Your task to perform on an android device: snooze an email in the gmail app Image 0: 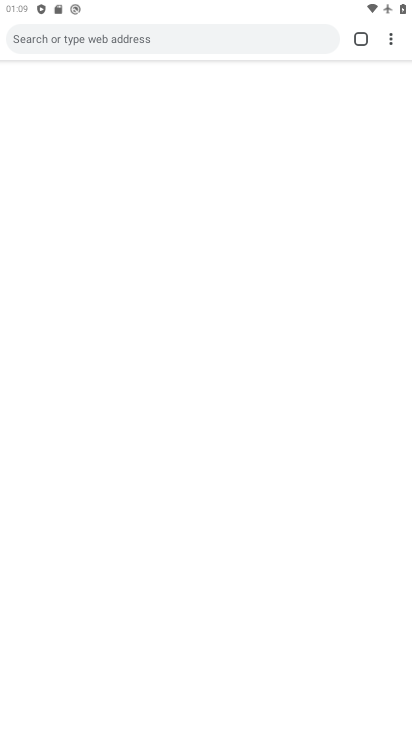
Step 0: drag from (194, 625) to (223, 103)
Your task to perform on an android device: snooze an email in the gmail app Image 1: 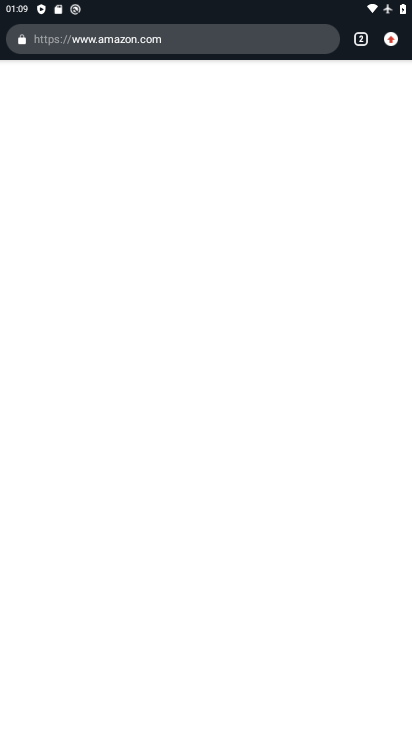
Step 1: press home button
Your task to perform on an android device: snooze an email in the gmail app Image 2: 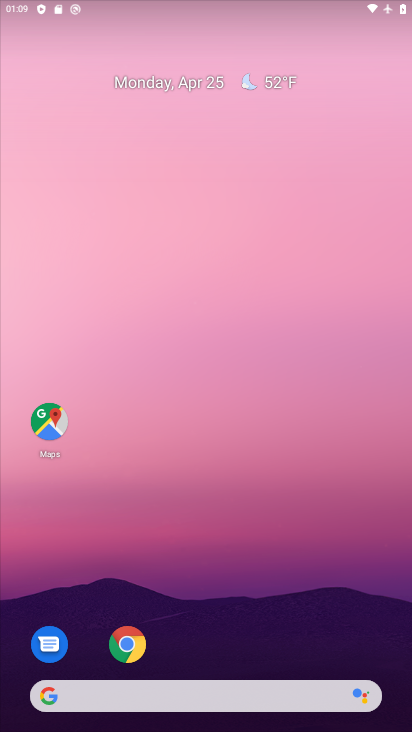
Step 2: drag from (230, 597) to (258, 58)
Your task to perform on an android device: snooze an email in the gmail app Image 3: 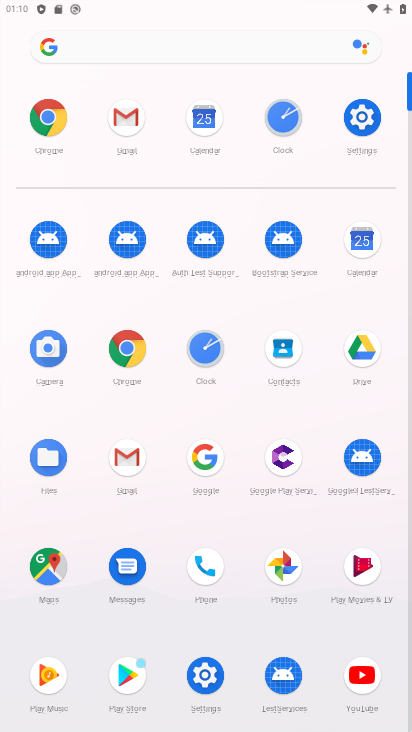
Step 3: click (127, 117)
Your task to perform on an android device: snooze an email in the gmail app Image 4: 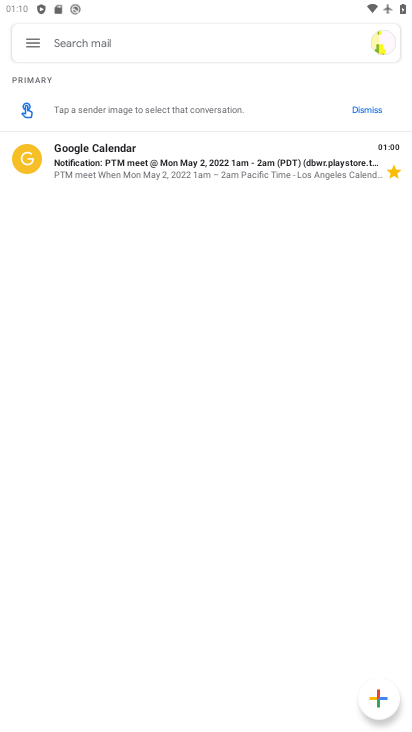
Step 4: click (20, 52)
Your task to perform on an android device: snooze an email in the gmail app Image 5: 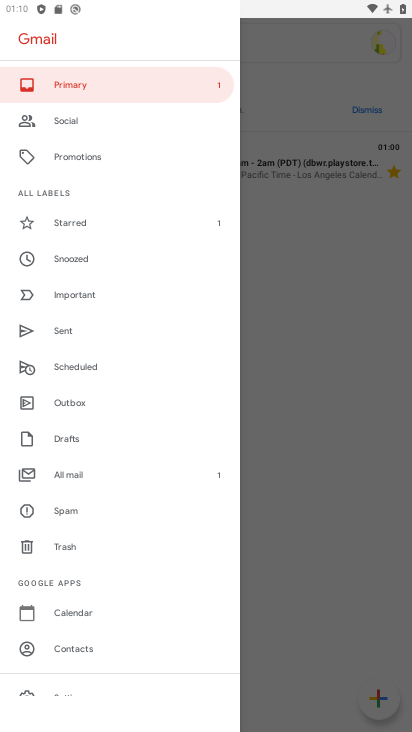
Step 5: click (82, 262)
Your task to perform on an android device: snooze an email in the gmail app Image 6: 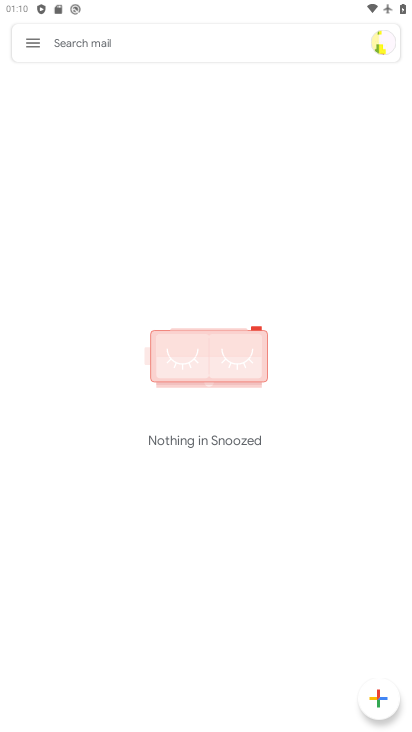
Step 6: task complete